Your task to perform on an android device: Open Chrome and go to settings Image 0: 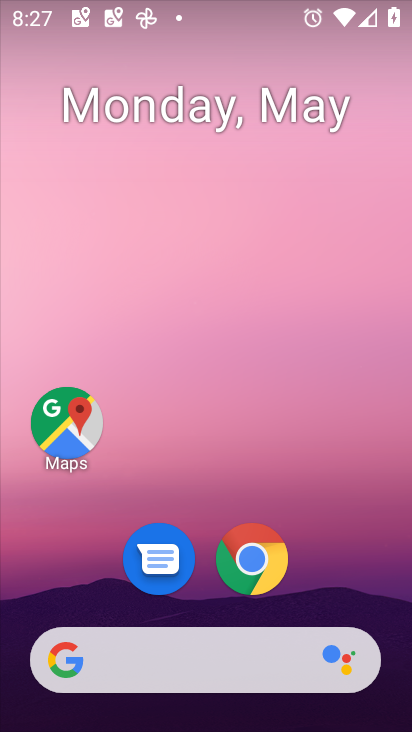
Step 0: drag from (401, 652) to (322, 30)
Your task to perform on an android device: Open Chrome and go to settings Image 1: 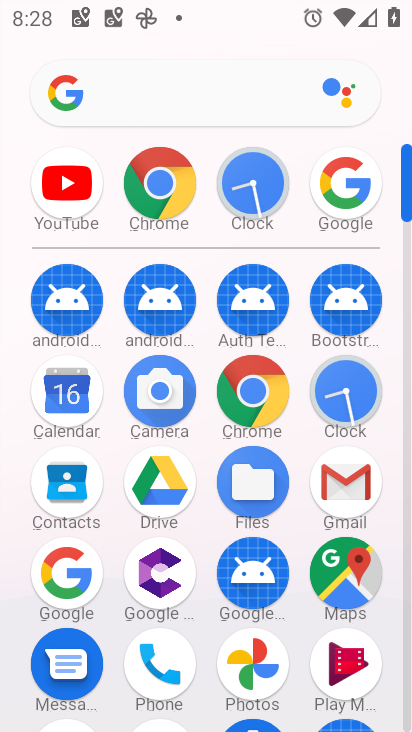
Step 1: click (161, 167)
Your task to perform on an android device: Open Chrome and go to settings Image 2: 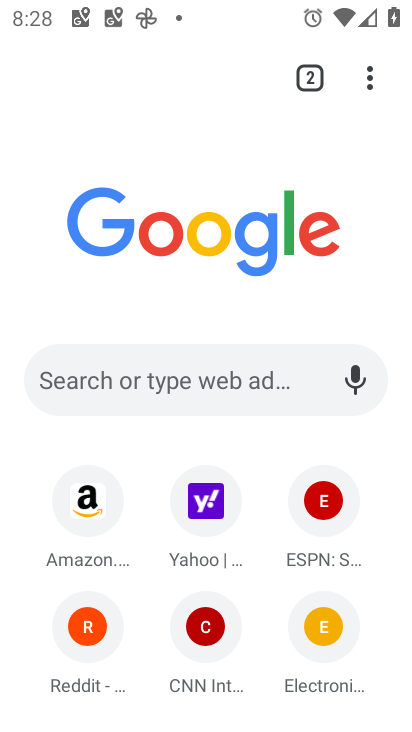
Step 2: click (370, 86)
Your task to perform on an android device: Open Chrome and go to settings Image 3: 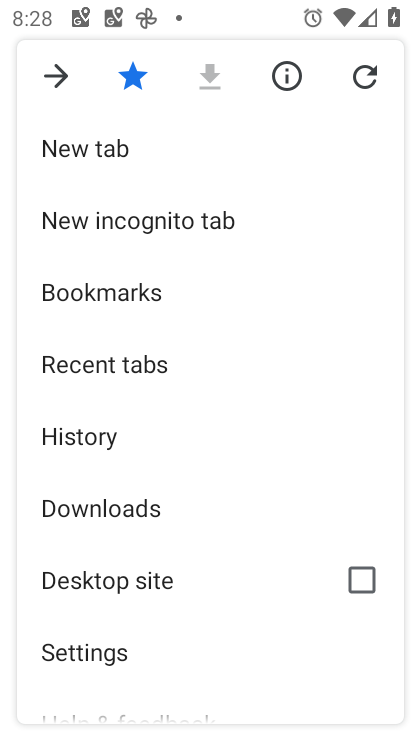
Step 3: click (147, 656)
Your task to perform on an android device: Open Chrome and go to settings Image 4: 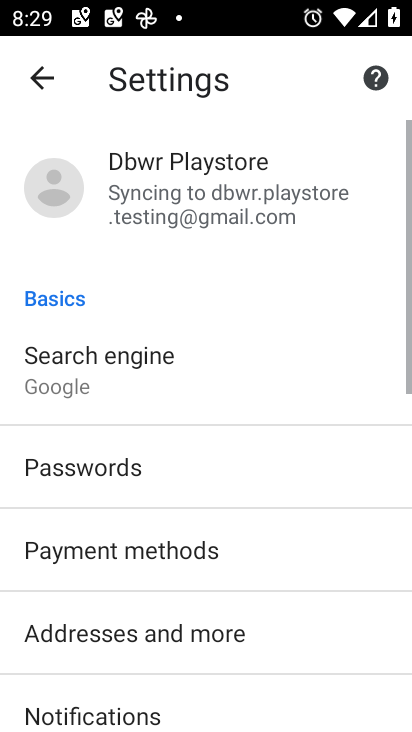
Step 4: task complete